Your task to perform on an android device: Go to network settings Image 0: 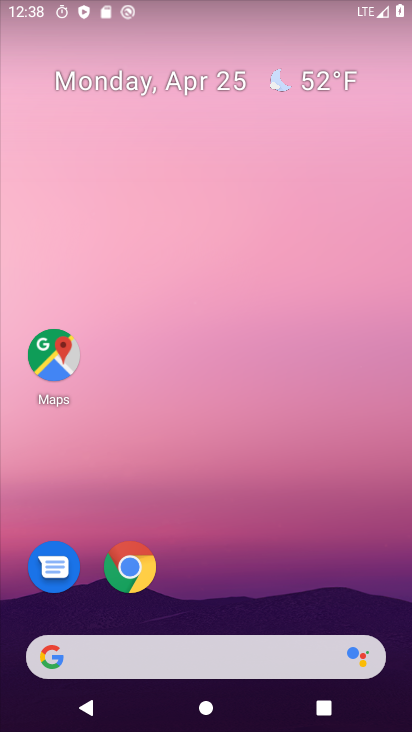
Step 0: drag from (310, 572) to (273, 0)
Your task to perform on an android device: Go to network settings Image 1: 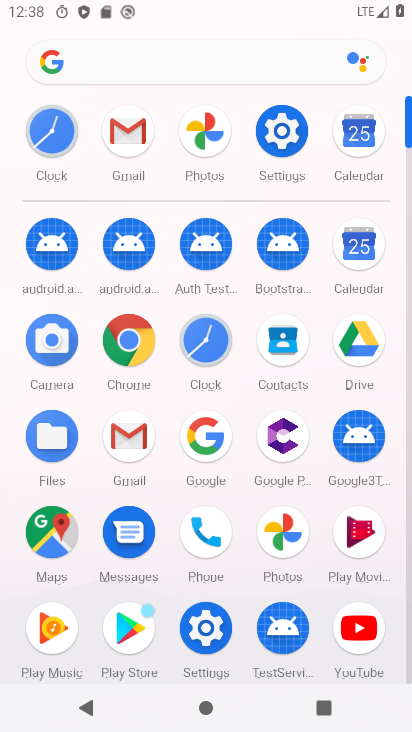
Step 1: click (284, 132)
Your task to perform on an android device: Go to network settings Image 2: 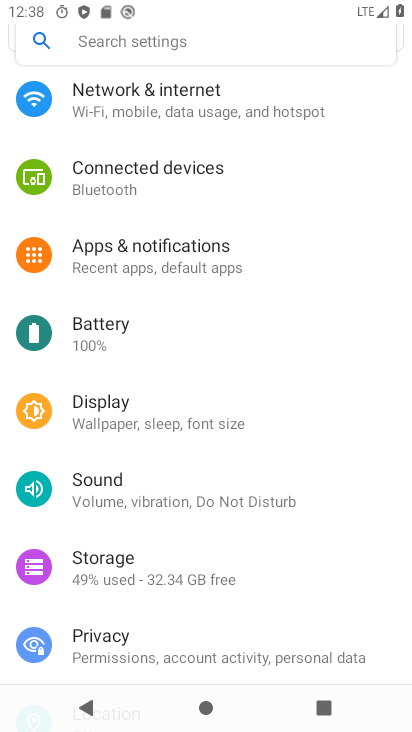
Step 2: click (274, 98)
Your task to perform on an android device: Go to network settings Image 3: 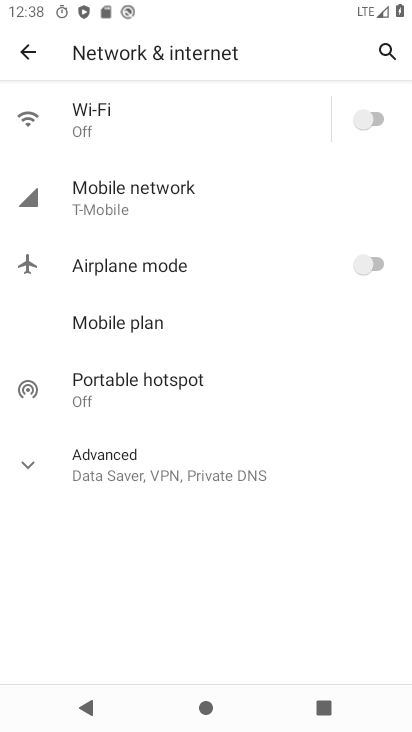
Step 3: task complete